Your task to perform on an android device: allow notifications from all sites in the chrome app Image 0: 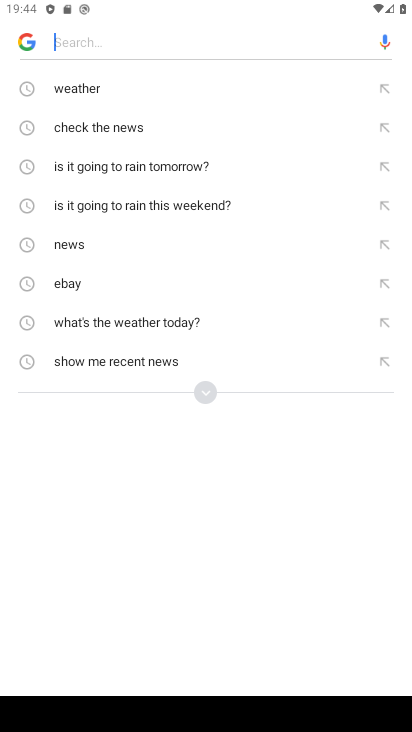
Step 0: press back button
Your task to perform on an android device: allow notifications from all sites in the chrome app Image 1: 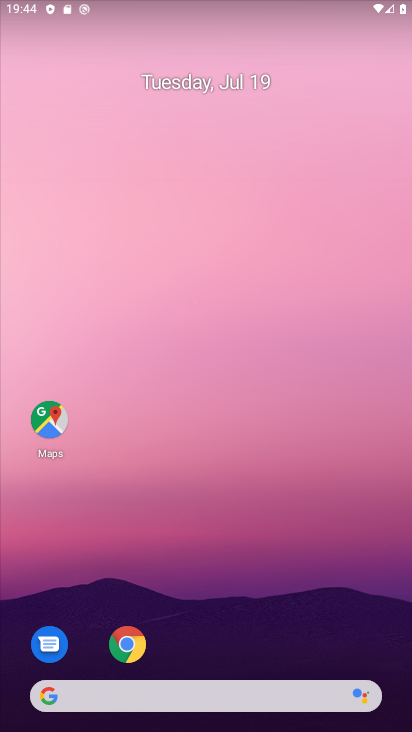
Step 1: drag from (222, 468) to (222, 205)
Your task to perform on an android device: allow notifications from all sites in the chrome app Image 2: 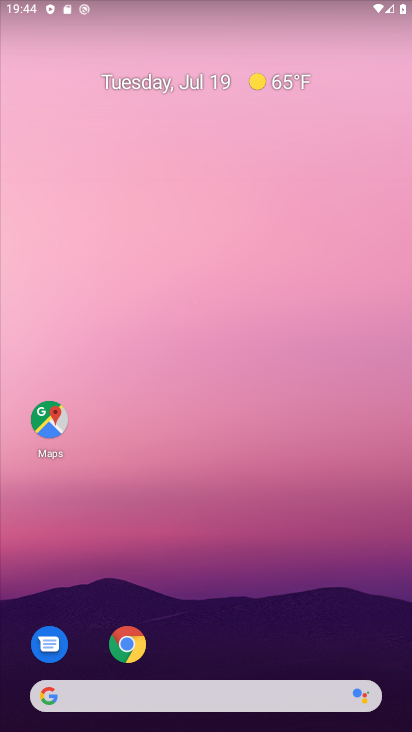
Step 2: drag from (222, 630) to (258, 245)
Your task to perform on an android device: allow notifications from all sites in the chrome app Image 3: 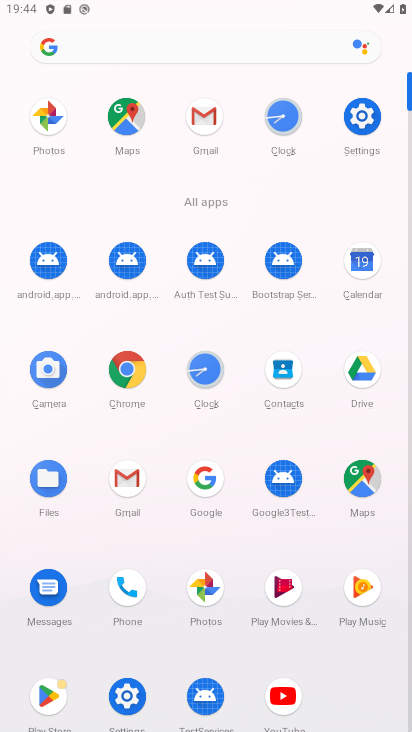
Step 3: drag from (251, 495) to (260, 212)
Your task to perform on an android device: allow notifications from all sites in the chrome app Image 4: 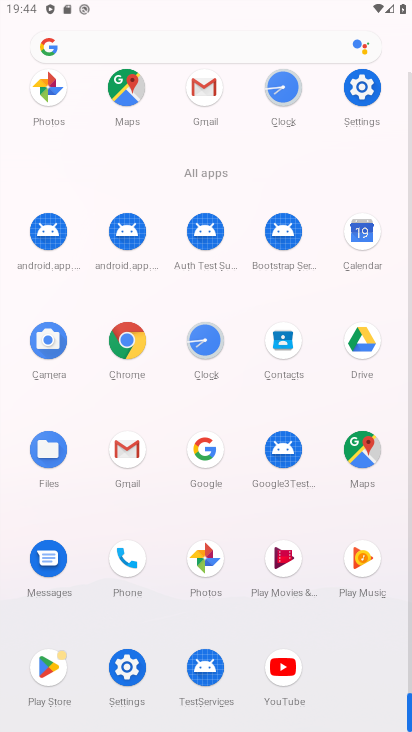
Step 4: click (129, 351)
Your task to perform on an android device: allow notifications from all sites in the chrome app Image 5: 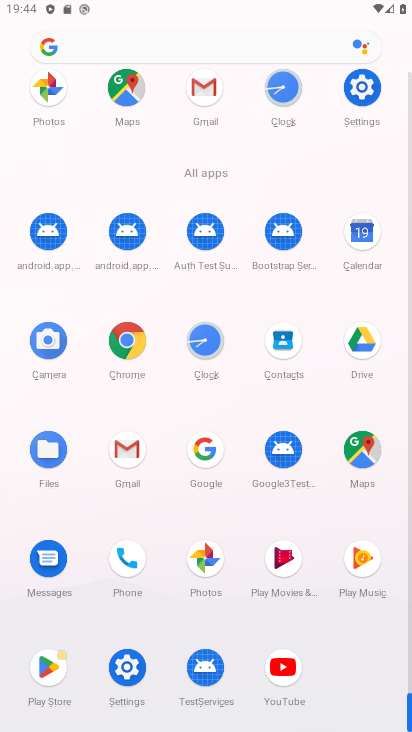
Step 5: click (129, 351)
Your task to perform on an android device: allow notifications from all sites in the chrome app Image 6: 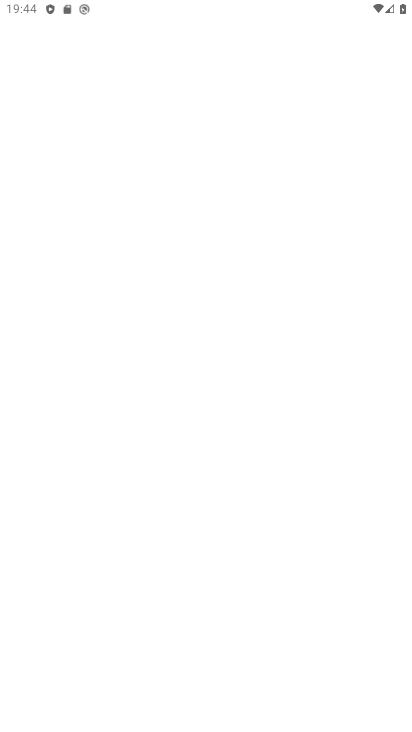
Step 6: click (130, 350)
Your task to perform on an android device: allow notifications from all sites in the chrome app Image 7: 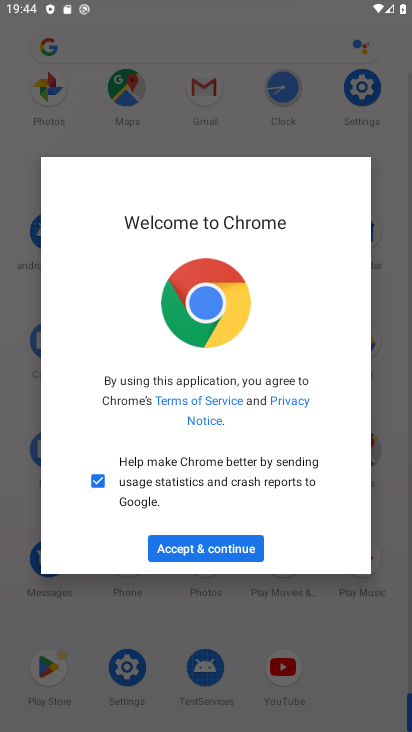
Step 7: click (199, 540)
Your task to perform on an android device: allow notifications from all sites in the chrome app Image 8: 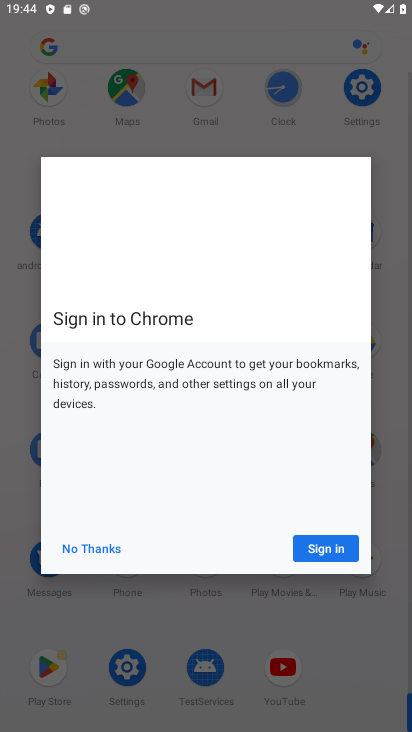
Step 8: click (201, 545)
Your task to perform on an android device: allow notifications from all sites in the chrome app Image 9: 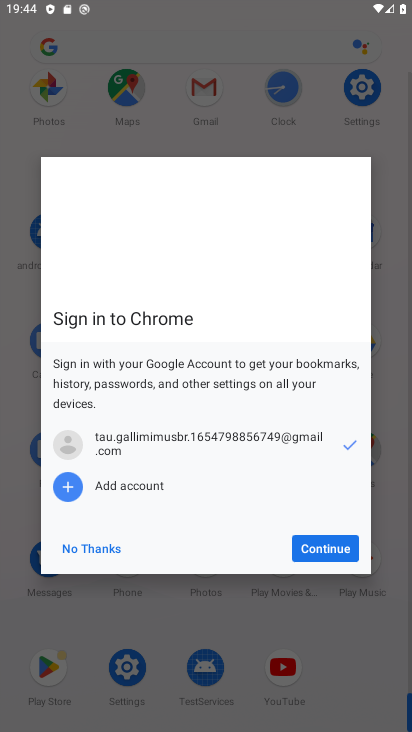
Step 9: click (318, 547)
Your task to perform on an android device: allow notifications from all sites in the chrome app Image 10: 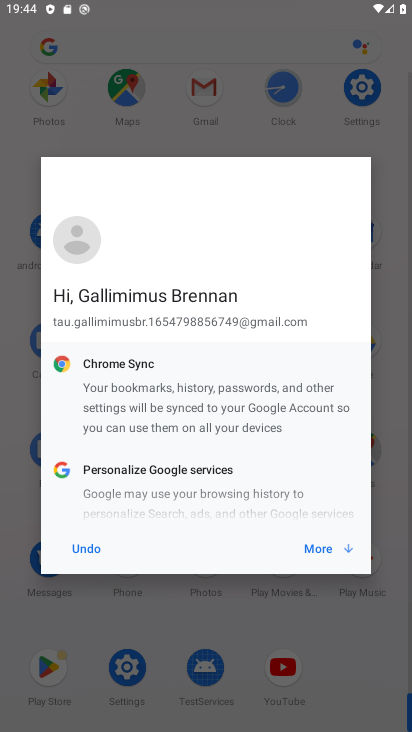
Step 10: click (337, 552)
Your task to perform on an android device: allow notifications from all sites in the chrome app Image 11: 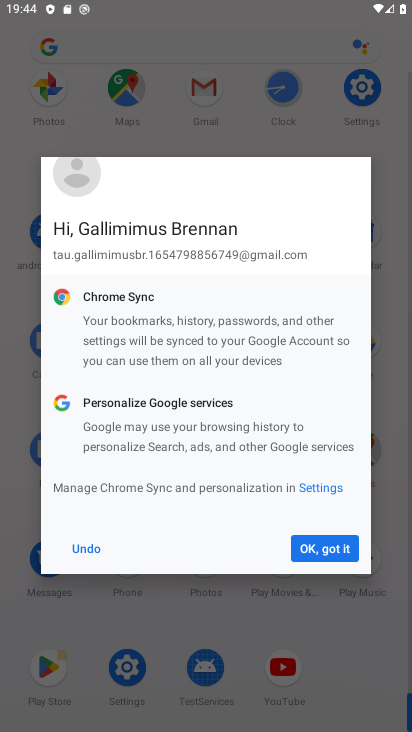
Step 11: click (337, 552)
Your task to perform on an android device: allow notifications from all sites in the chrome app Image 12: 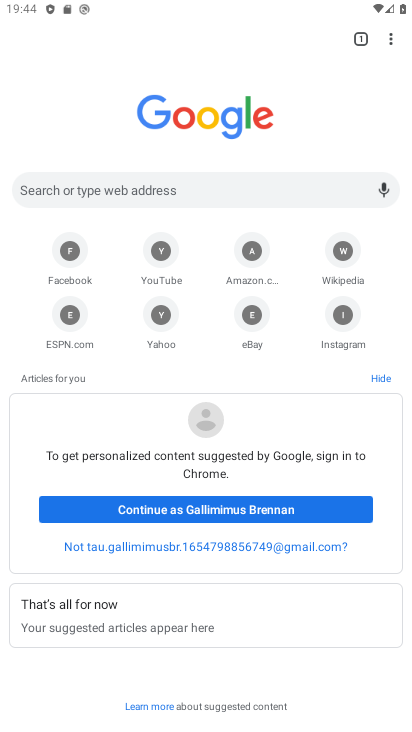
Step 12: drag from (386, 42) to (265, 335)
Your task to perform on an android device: allow notifications from all sites in the chrome app Image 13: 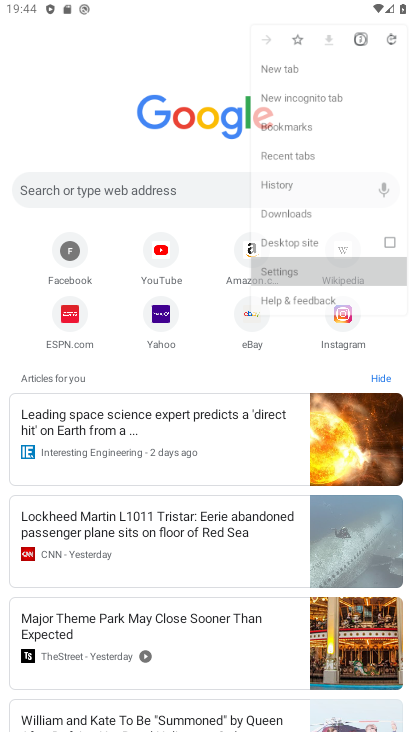
Step 13: click (264, 336)
Your task to perform on an android device: allow notifications from all sites in the chrome app Image 14: 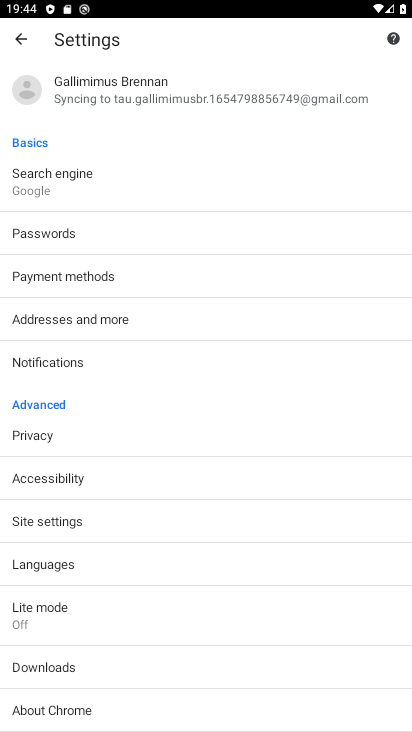
Step 14: click (37, 513)
Your task to perform on an android device: allow notifications from all sites in the chrome app Image 15: 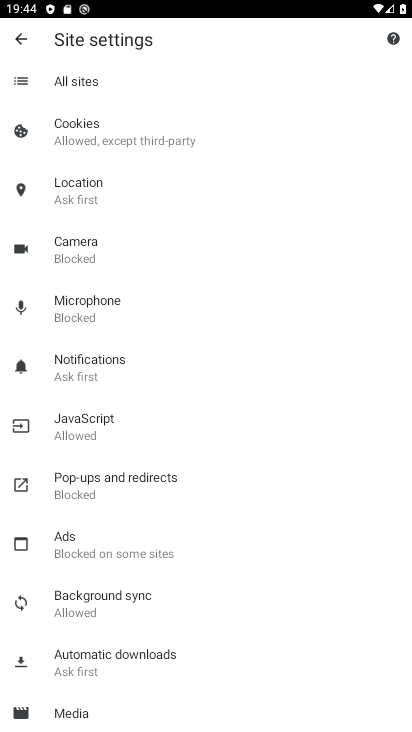
Step 15: click (82, 364)
Your task to perform on an android device: allow notifications from all sites in the chrome app Image 16: 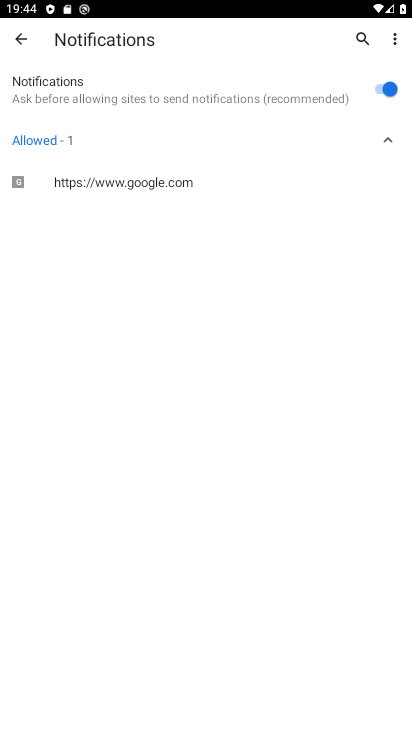
Step 16: task complete